Your task to perform on an android device: Open Reddit.com Image 0: 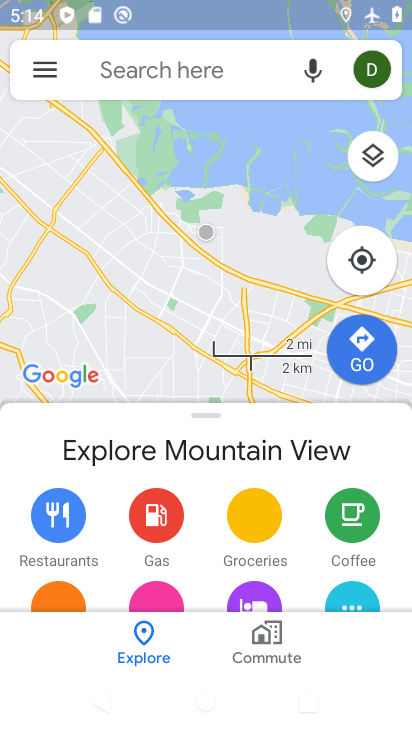
Step 0: press home button
Your task to perform on an android device: Open Reddit.com Image 1: 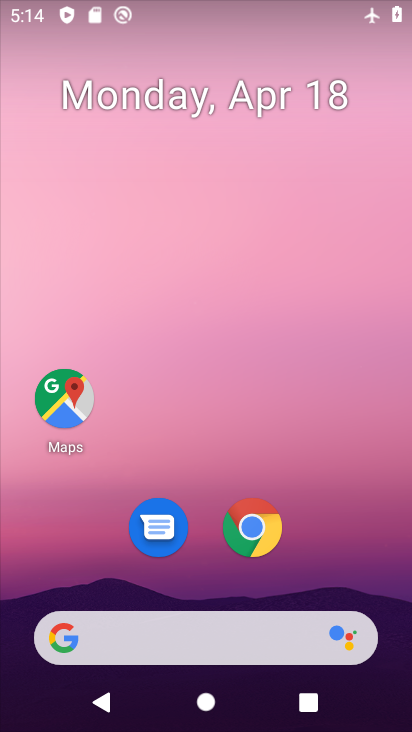
Step 1: drag from (252, 1) to (279, 345)
Your task to perform on an android device: Open Reddit.com Image 2: 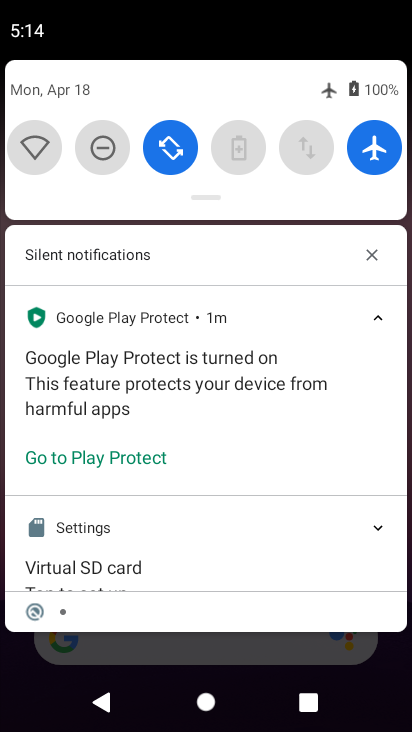
Step 2: drag from (264, 202) to (286, 457)
Your task to perform on an android device: Open Reddit.com Image 3: 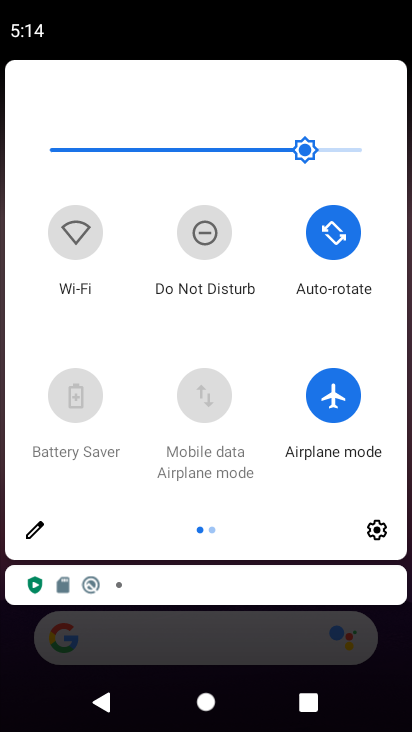
Step 3: click (340, 387)
Your task to perform on an android device: Open Reddit.com Image 4: 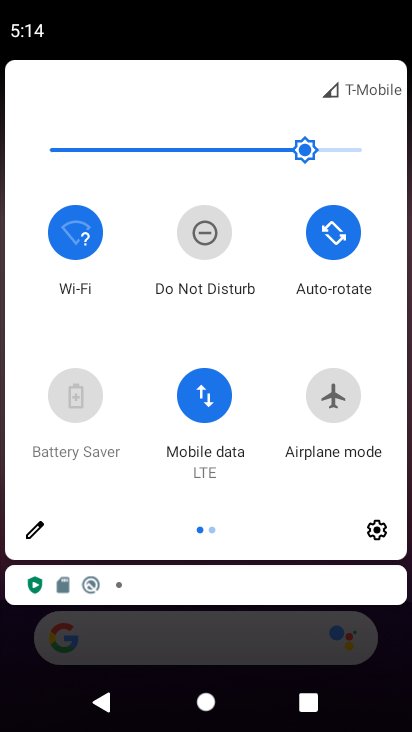
Step 4: drag from (225, 549) to (212, 250)
Your task to perform on an android device: Open Reddit.com Image 5: 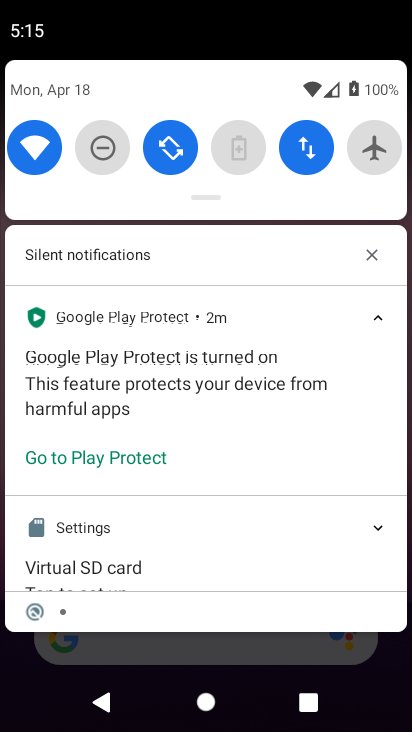
Step 5: click (377, 254)
Your task to perform on an android device: Open Reddit.com Image 6: 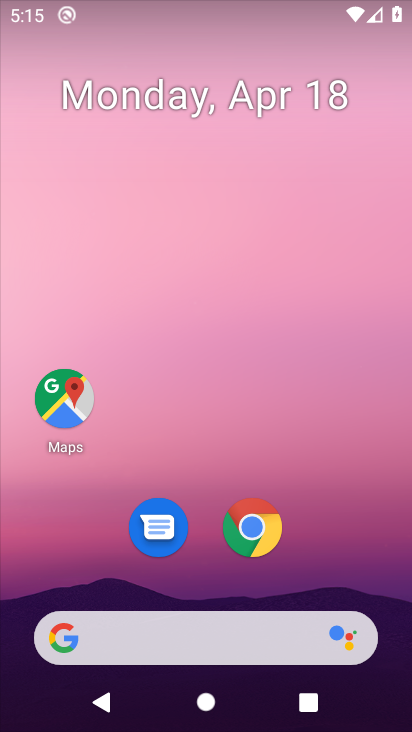
Step 6: click (247, 537)
Your task to perform on an android device: Open Reddit.com Image 7: 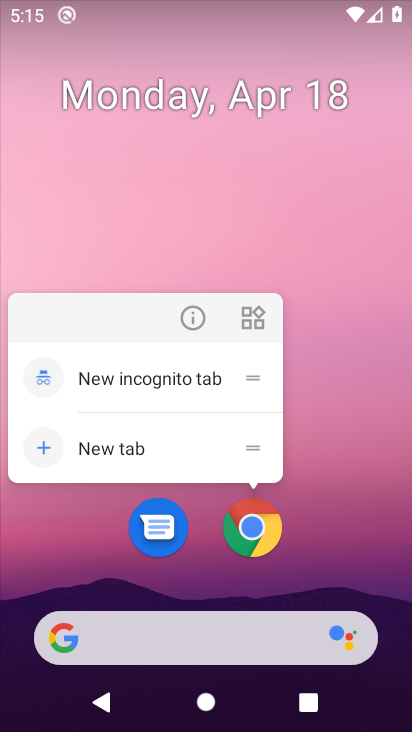
Step 7: click (247, 537)
Your task to perform on an android device: Open Reddit.com Image 8: 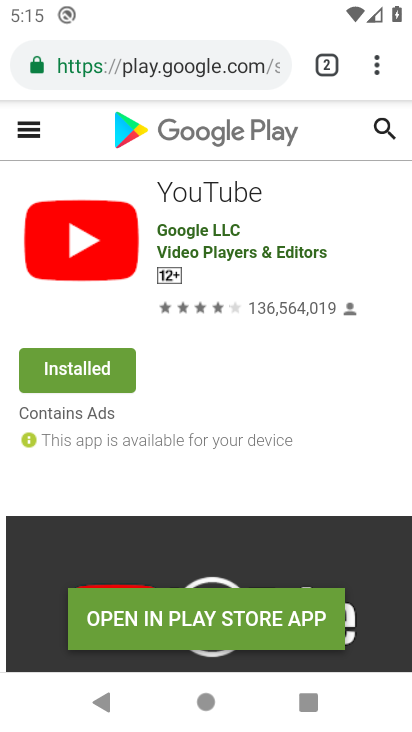
Step 8: click (328, 67)
Your task to perform on an android device: Open Reddit.com Image 9: 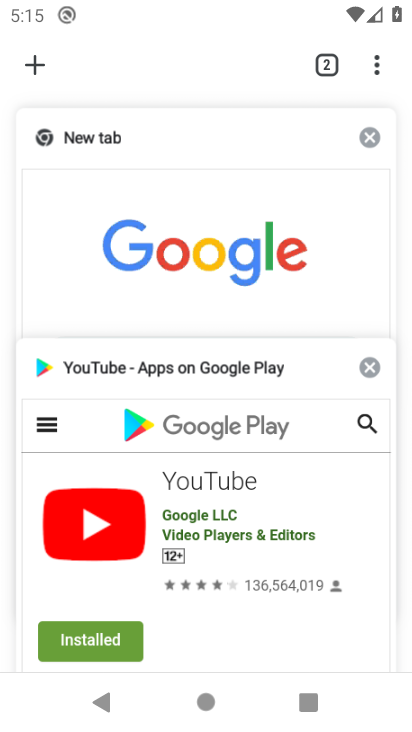
Step 9: click (31, 64)
Your task to perform on an android device: Open Reddit.com Image 10: 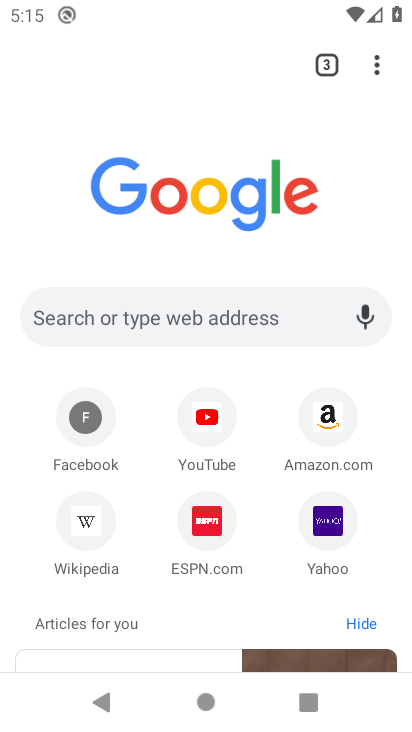
Step 10: click (194, 317)
Your task to perform on an android device: Open Reddit.com Image 11: 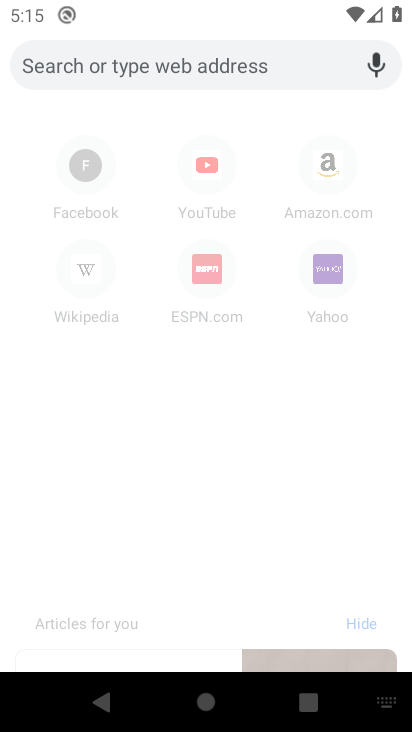
Step 11: type "reddit.com"
Your task to perform on an android device: Open Reddit.com Image 12: 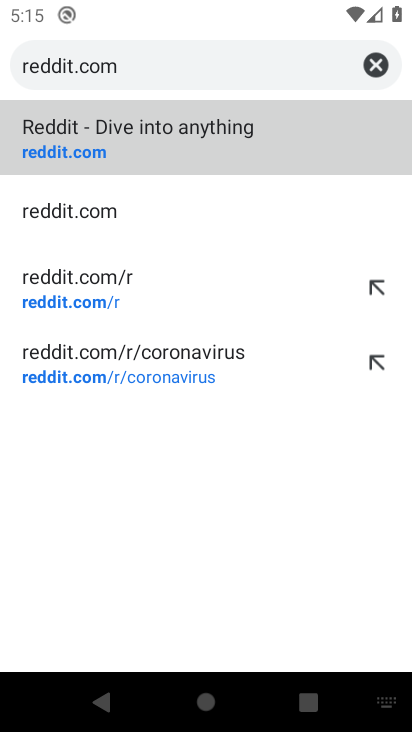
Step 12: click (102, 209)
Your task to perform on an android device: Open Reddit.com Image 13: 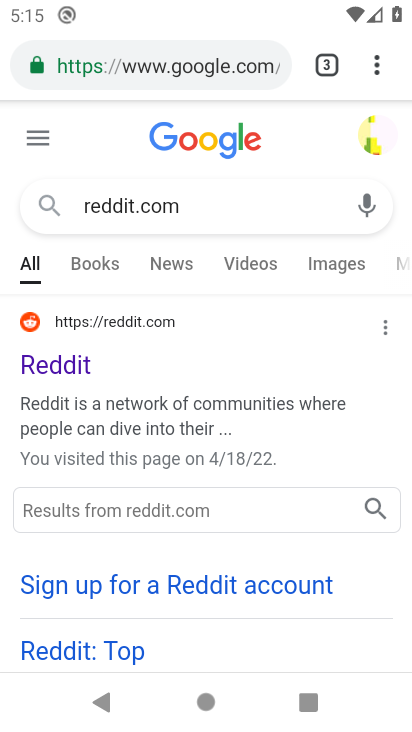
Step 13: click (42, 367)
Your task to perform on an android device: Open Reddit.com Image 14: 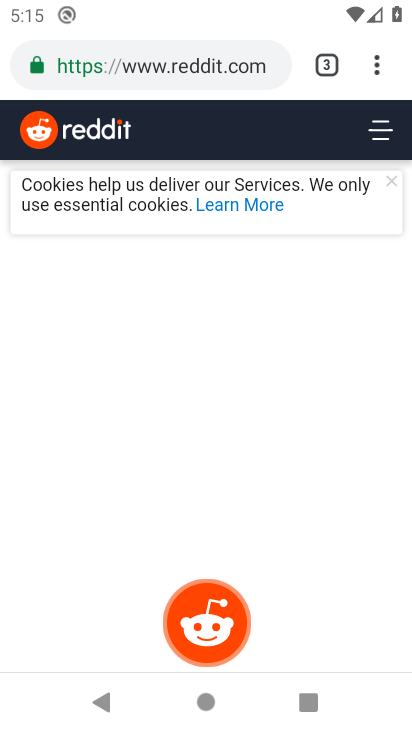
Step 14: task complete